Your task to perform on an android device: When is my next meeting? Image 0: 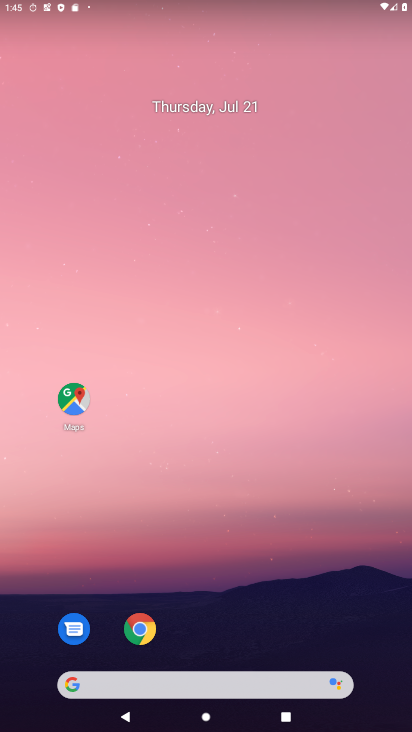
Step 0: drag from (23, 696) to (311, 86)
Your task to perform on an android device: When is my next meeting? Image 1: 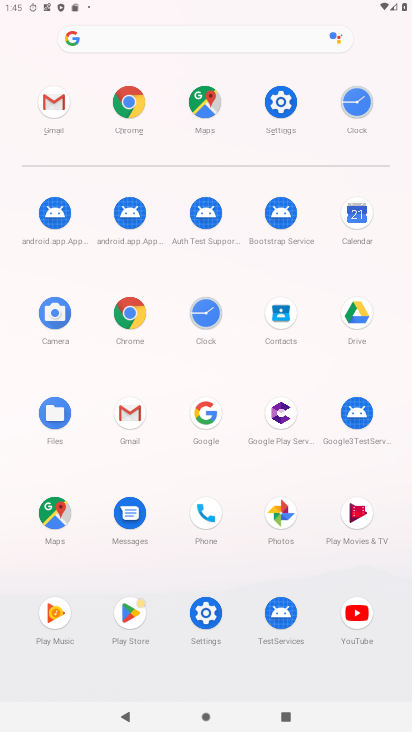
Step 1: click (353, 214)
Your task to perform on an android device: When is my next meeting? Image 2: 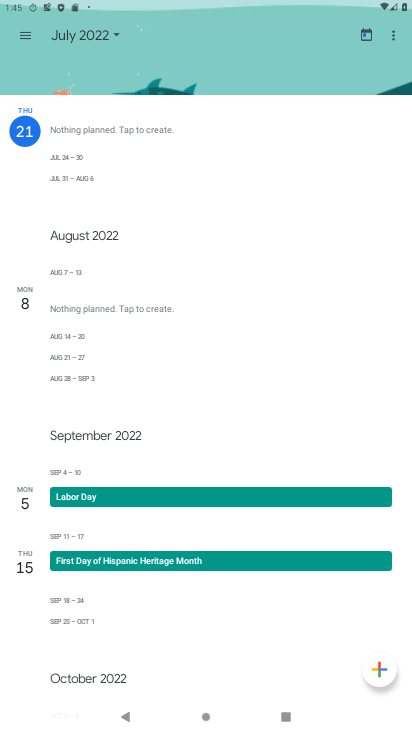
Step 2: task complete